Your task to perform on an android device: turn on translation in the chrome app Image 0: 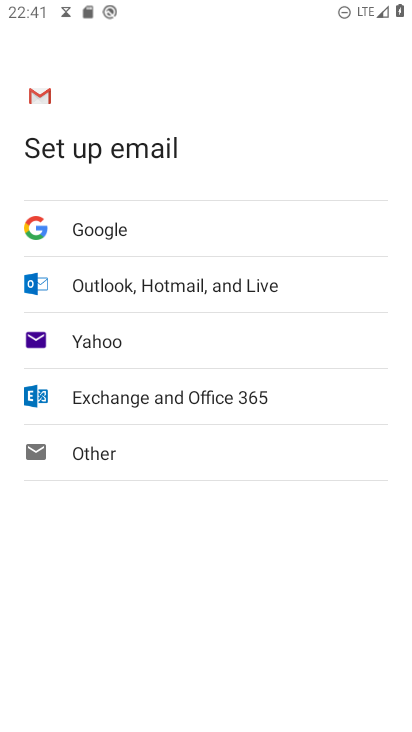
Step 0: press home button
Your task to perform on an android device: turn on translation in the chrome app Image 1: 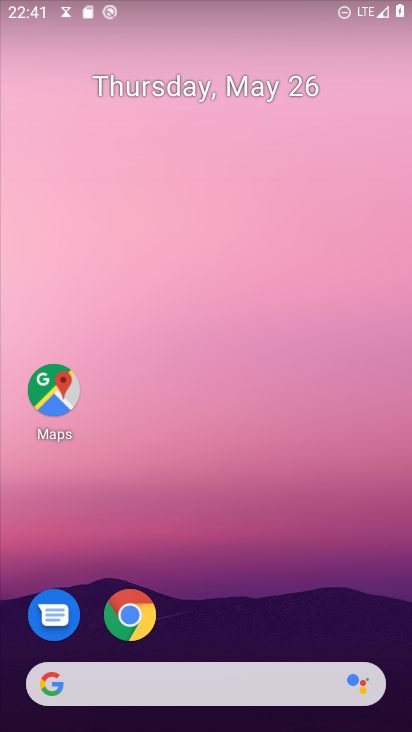
Step 1: click (127, 609)
Your task to perform on an android device: turn on translation in the chrome app Image 2: 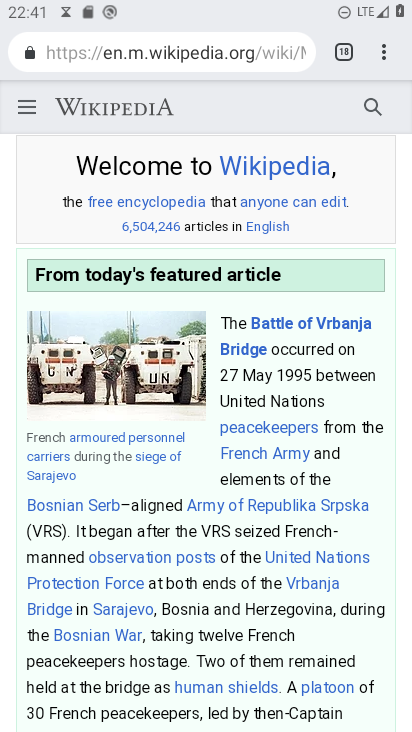
Step 2: click (380, 48)
Your task to perform on an android device: turn on translation in the chrome app Image 3: 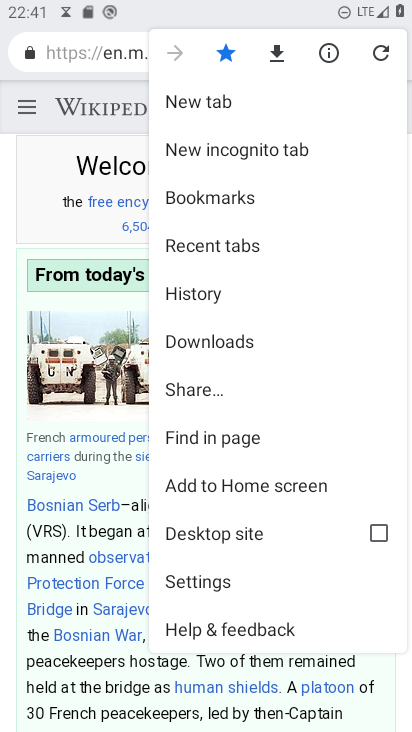
Step 3: click (226, 579)
Your task to perform on an android device: turn on translation in the chrome app Image 4: 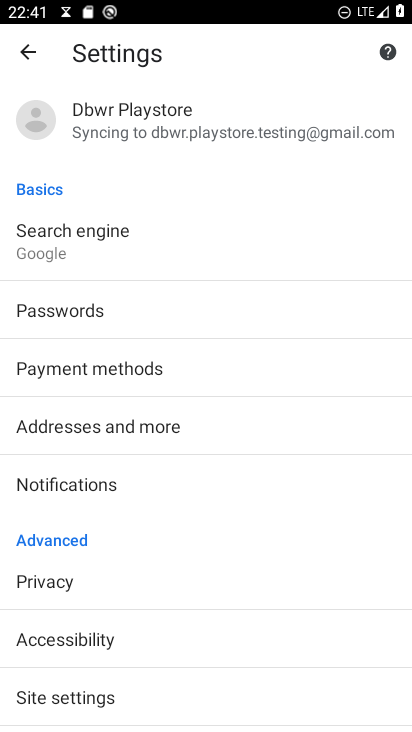
Step 4: drag from (168, 646) to (175, 336)
Your task to perform on an android device: turn on translation in the chrome app Image 5: 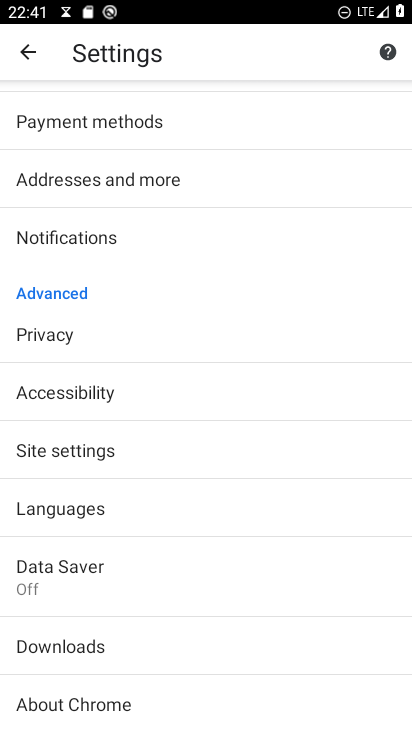
Step 5: click (115, 498)
Your task to perform on an android device: turn on translation in the chrome app Image 6: 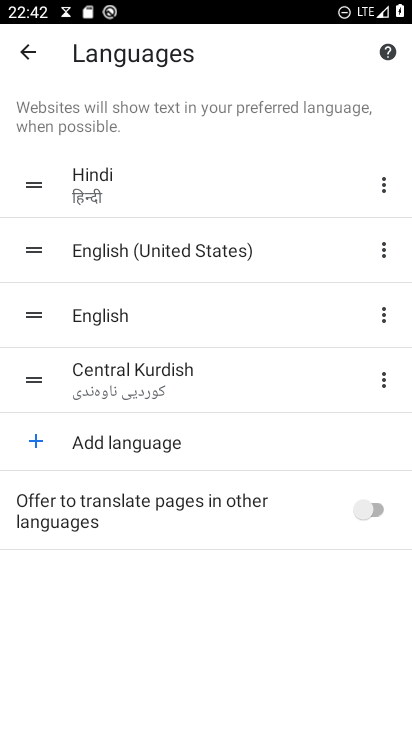
Step 6: click (362, 514)
Your task to perform on an android device: turn on translation in the chrome app Image 7: 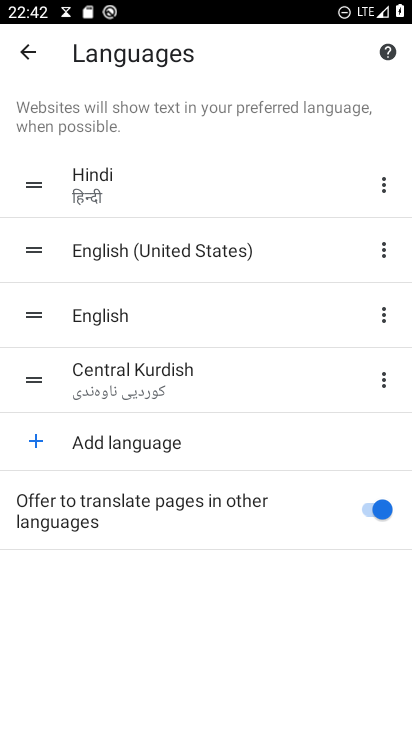
Step 7: task complete